Your task to perform on an android device: Find coffee shops on Maps Image 0: 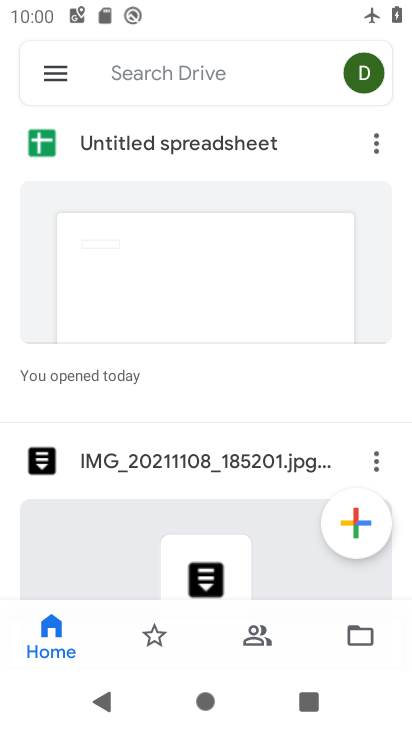
Step 0: press home button
Your task to perform on an android device: Find coffee shops on Maps Image 1: 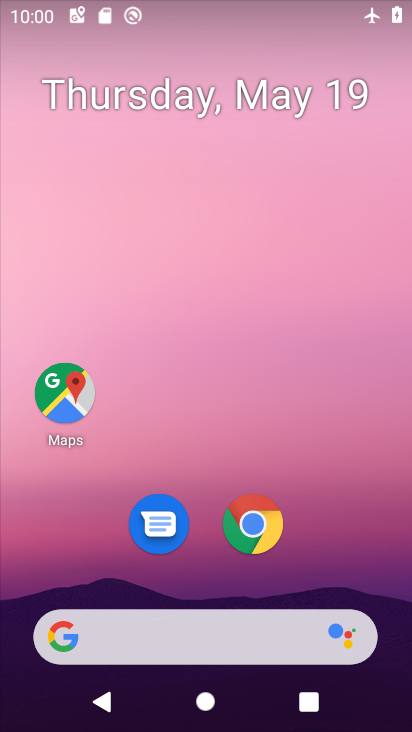
Step 1: click (59, 401)
Your task to perform on an android device: Find coffee shops on Maps Image 2: 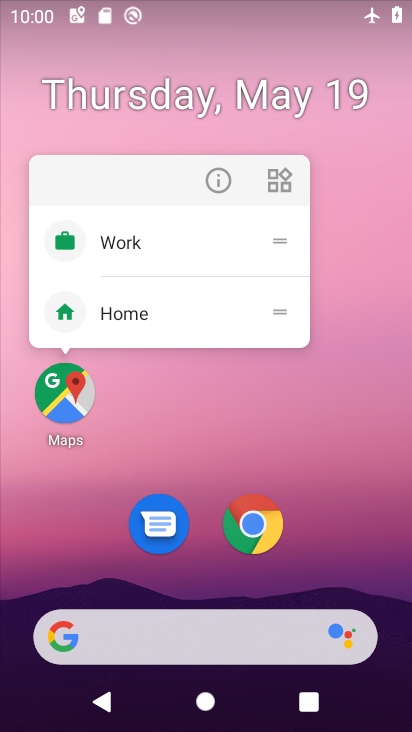
Step 2: click (59, 400)
Your task to perform on an android device: Find coffee shops on Maps Image 3: 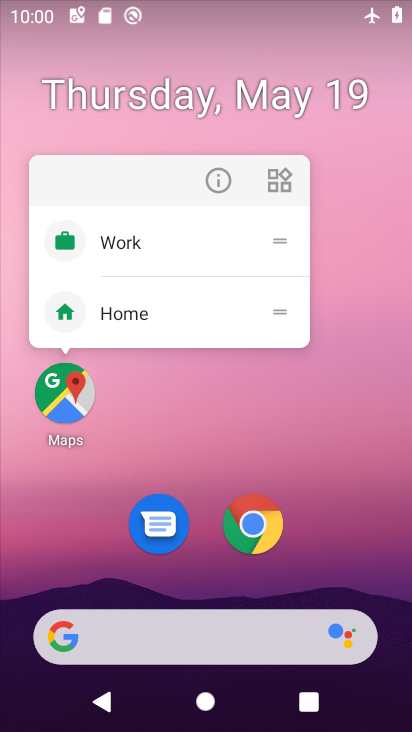
Step 3: click (59, 400)
Your task to perform on an android device: Find coffee shops on Maps Image 4: 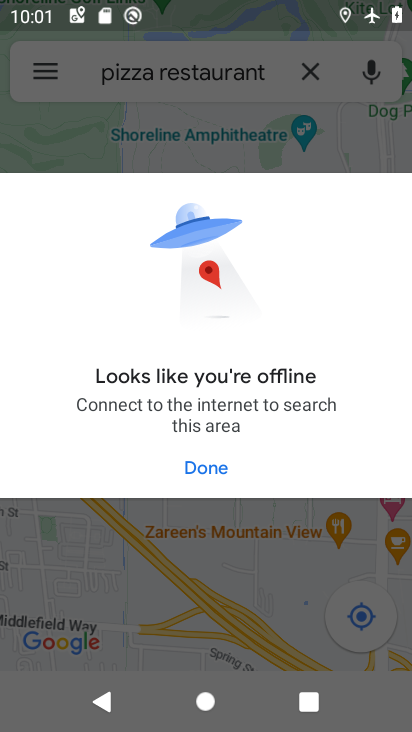
Step 4: task complete